Your task to perform on an android device: Go to eBay Image 0: 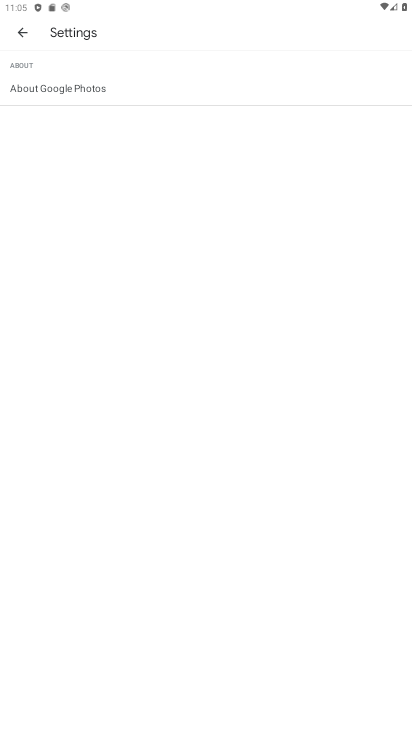
Step 0: press home button
Your task to perform on an android device: Go to eBay Image 1: 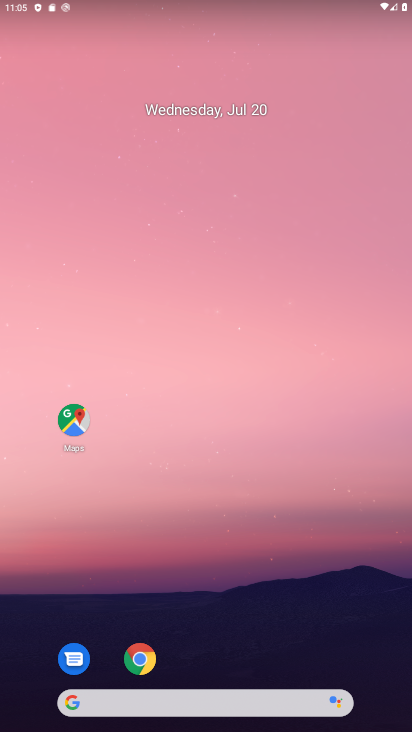
Step 1: click (132, 664)
Your task to perform on an android device: Go to eBay Image 2: 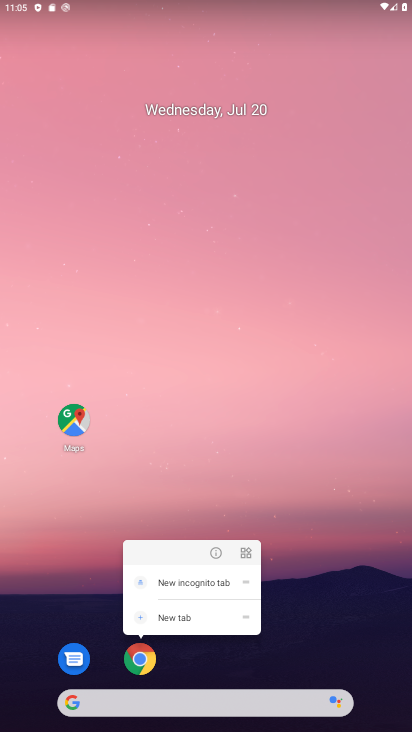
Step 2: click (138, 668)
Your task to perform on an android device: Go to eBay Image 3: 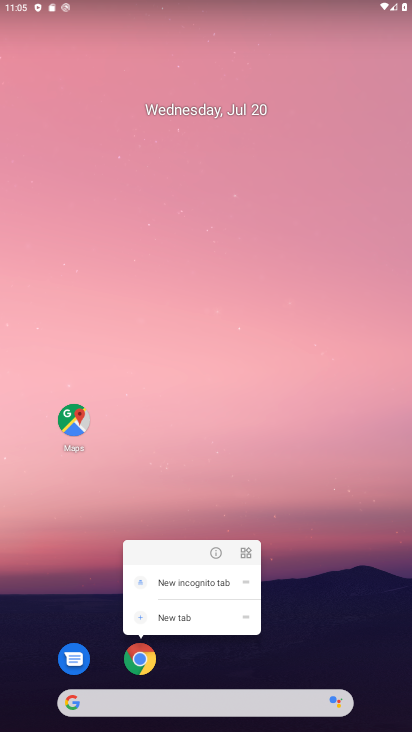
Step 3: click (138, 668)
Your task to perform on an android device: Go to eBay Image 4: 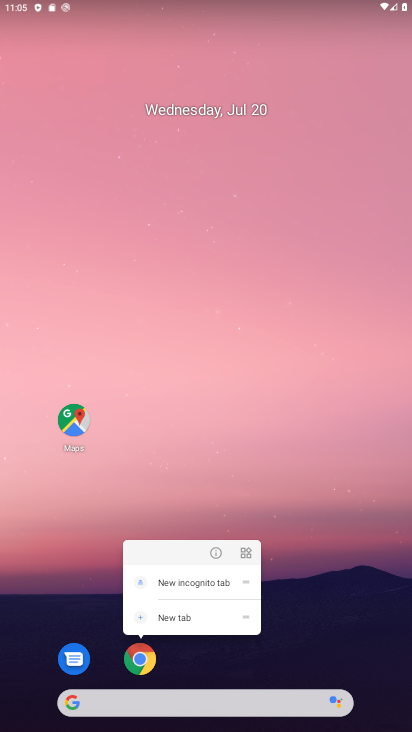
Step 4: click (148, 664)
Your task to perform on an android device: Go to eBay Image 5: 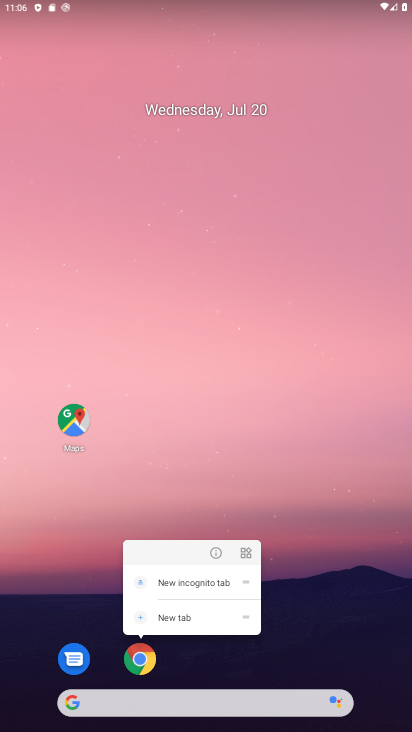
Step 5: drag from (229, 682) to (241, 206)
Your task to perform on an android device: Go to eBay Image 6: 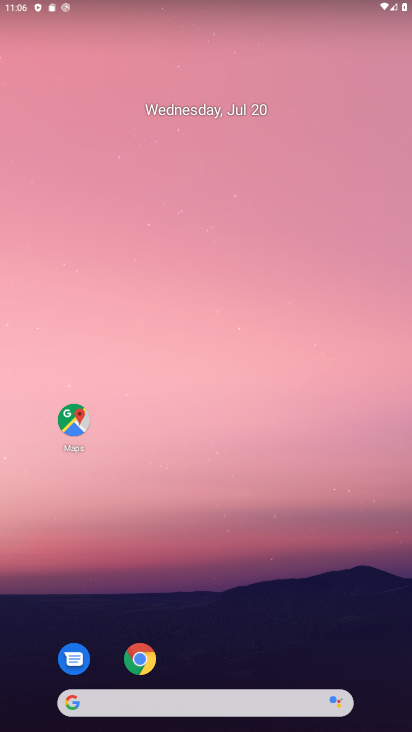
Step 6: drag from (271, 672) to (268, 202)
Your task to perform on an android device: Go to eBay Image 7: 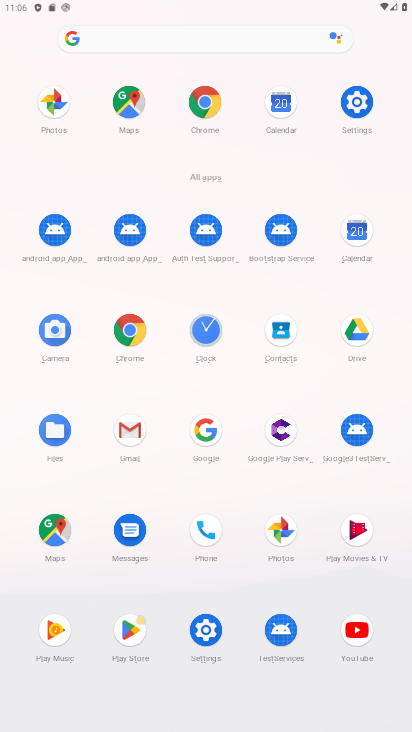
Step 7: click (129, 346)
Your task to perform on an android device: Go to eBay Image 8: 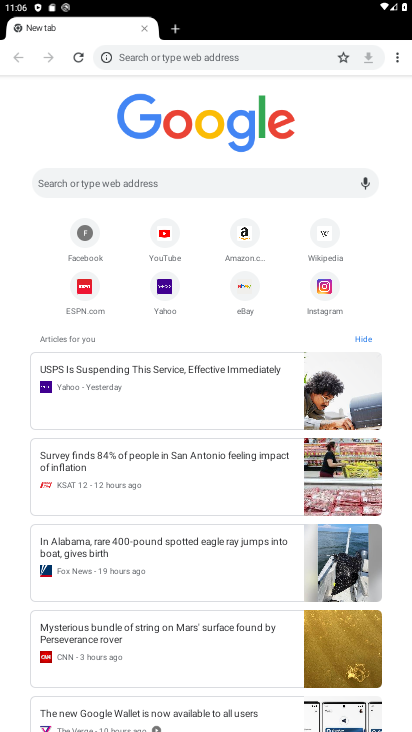
Step 8: click (241, 306)
Your task to perform on an android device: Go to eBay Image 9: 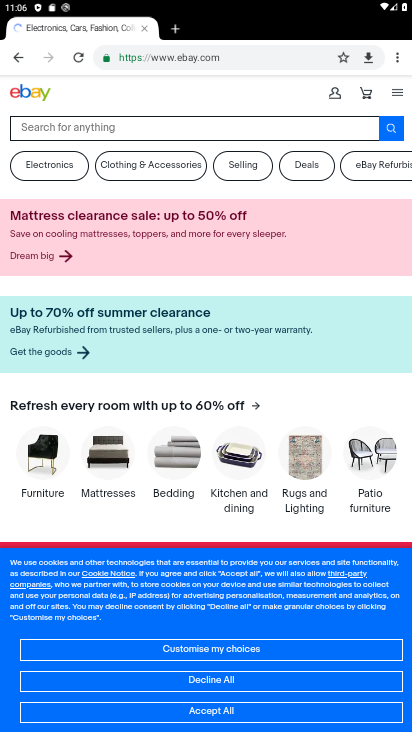
Step 9: task complete